Your task to perform on an android device: Go to settings Image 0: 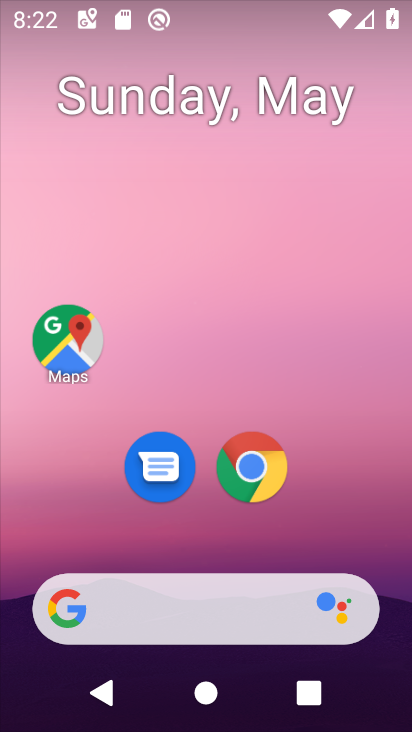
Step 0: drag from (375, 497) to (337, 89)
Your task to perform on an android device: Go to settings Image 1: 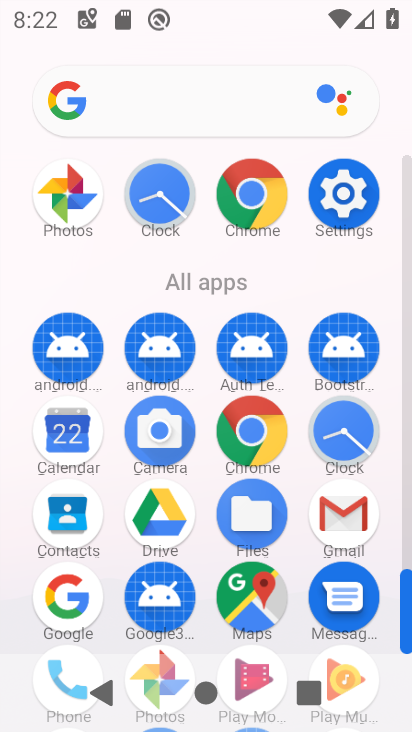
Step 1: click (336, 176)
Your task to perform on an android device: Go to settings Image 2: 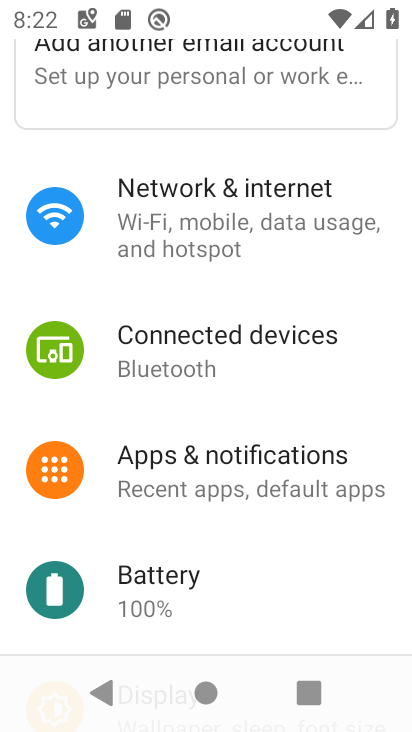
Step 2: task complete